Your task to perform on an android device: Add lg ultragear to the cart on costco, then select checkout. Image 0: 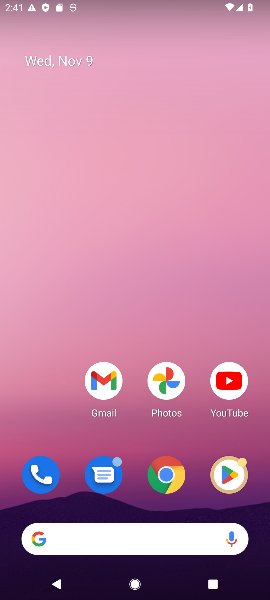
Step 0: drag from (153, 491) to (133, 128)
Your task to perform on an android device: Add lg ultragear to the cart on costco, then select checkout. Image 1: 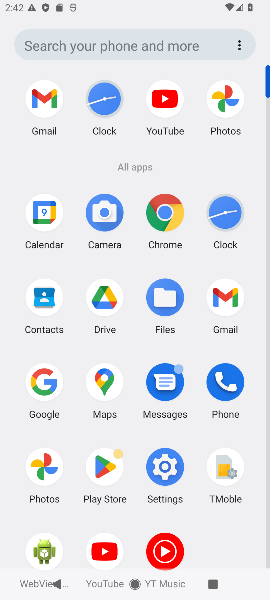
Step 1: click (170, 215)
Your task to perform on an android device: Add lg ultragear to the cart on costco, then select checkout. Image 2: 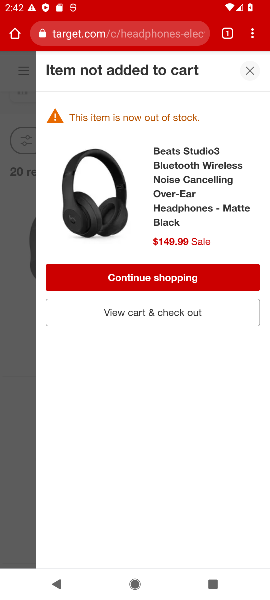
Step 2: click (126, 36)
Your task to perform on an android device: Add lg ultragear to the cart on costco, then select checkout. Image 3: 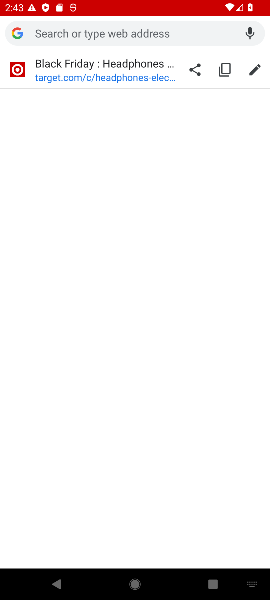
Step 3: type "costco"
Your task to perform on an android device: Add lg ultragear to the cart on costco, then select checkout. Image 4: 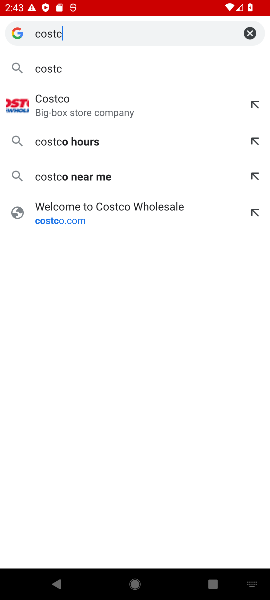
Step 4: press enter
Your task to perform on an android device: Add lg ultragear to the cart on costco, then select checkout. Image 5: 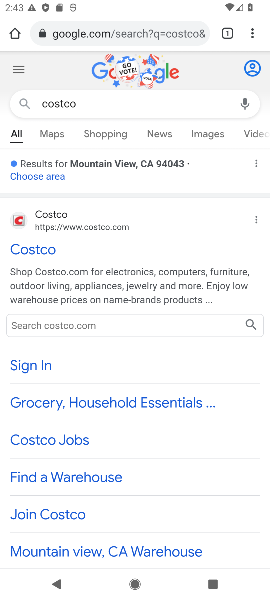
Step 5: click (68, 226)
Your task to perform on an android device: Add lg ultragear to the cart on costco, then select checkout. Image 6: 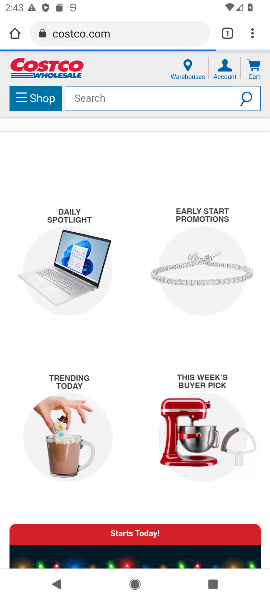
Step 6: click (118, 92)
Your task to perform on an android device: Add lg ultragear to the cart on costco, then select checkout. Image 7: 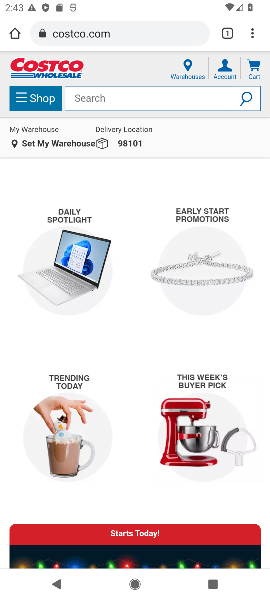
Step 7: click (132, 107)
Your task to perform on an android device: Add lg ultragear to the cart on costco, then select checkout. Image 8: 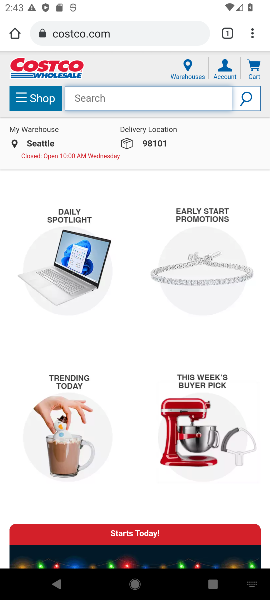
Step 8: type "lg ultragear"
Your task to perform on an android device: Add lg ultragear to the cart on costco, then select checkout. Image 9: 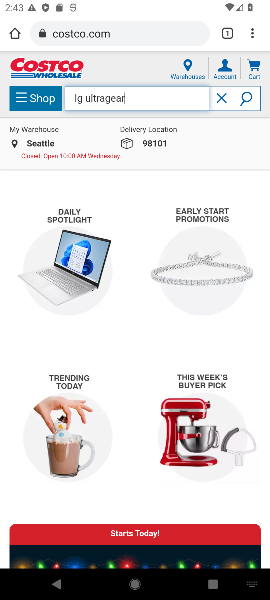
Step 9: press enter
Your task to perform on an android device: Add lg ultragear to the cart on costco, then select checkout. Image 10: 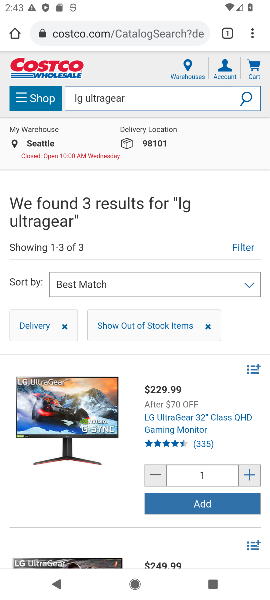
Step 10: click (233, 500)
Your task to perform on an android device: Add lg ultragear to the cart on costco, then select checkout. Image 11: 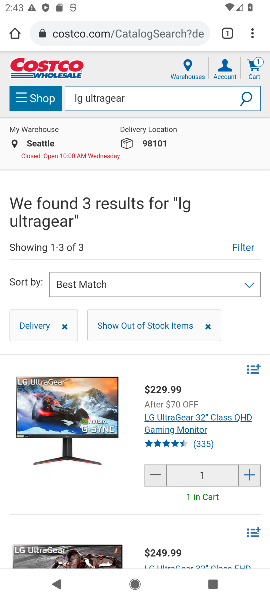
Step 11: click (259, 63)
Your task to perform on an android device: Add lg ultragear to the cart on costco, then select checkout. Image 12: 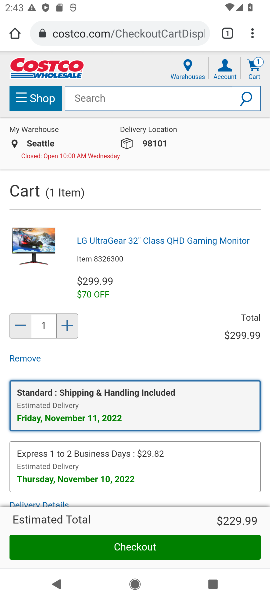
Step 12: click (139, 552)
Your task to perform on an android device: Add lg ultragear to the cart on costco, then select checkout. Image 13: 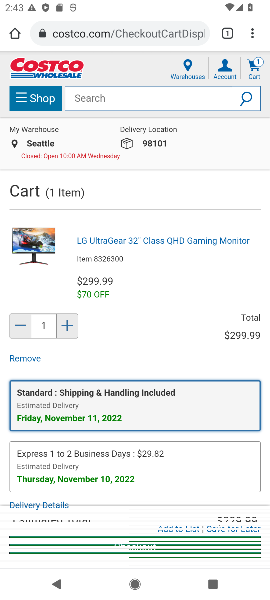
Step 13: click (139, 548)
Your task to perform on an android device: Add lg ultragear to the cart on costco, then select checkout. Image 14: 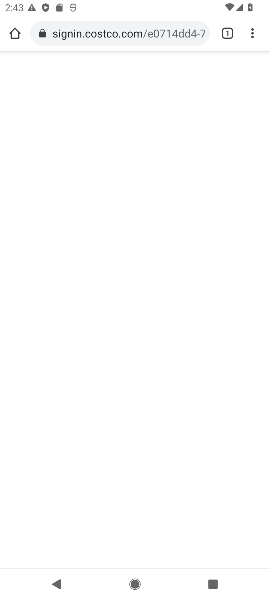
Step 14: click (139, 548)
Your task to perform on an android device: Add lg ultragear to the cart on costco, then select checkout. Image 15: 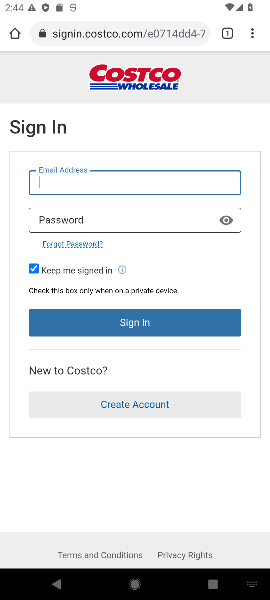
Step 15: click (139, 548)
Your task to perform on an android device: Add lg ultragear to the cart on costco, then select checkout. Image 16: 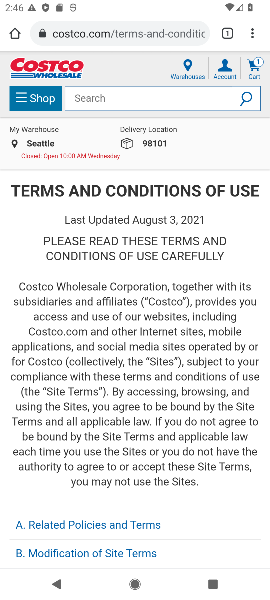
Step 16: task complete